Your task to perform on an android device: turn smart compose on in the gmail app Image 0: 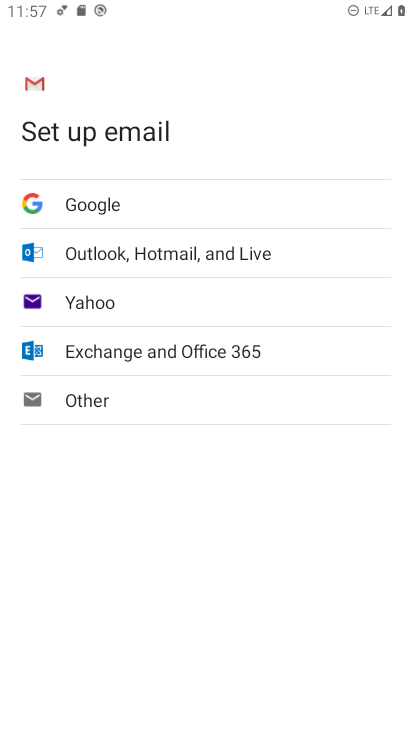
Step 0: press home button
Your task to perform on an android device: turn smart compose on in the gmail app Image 1: 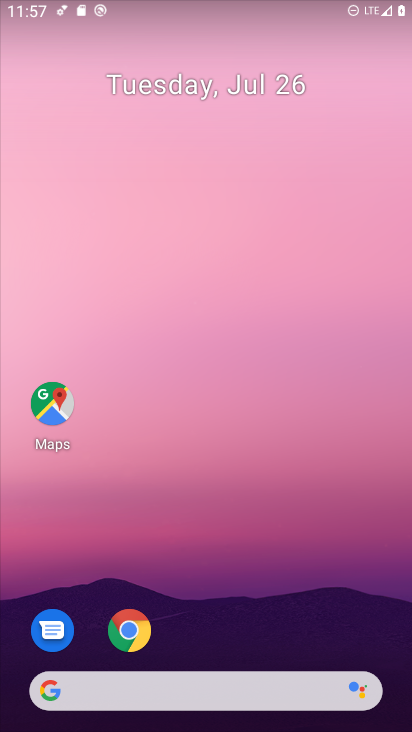
Step 1: drag from (346, 628) to (314, 269)
Your task to perform on an android device: turn smart compose on in the gmail app Image 2: 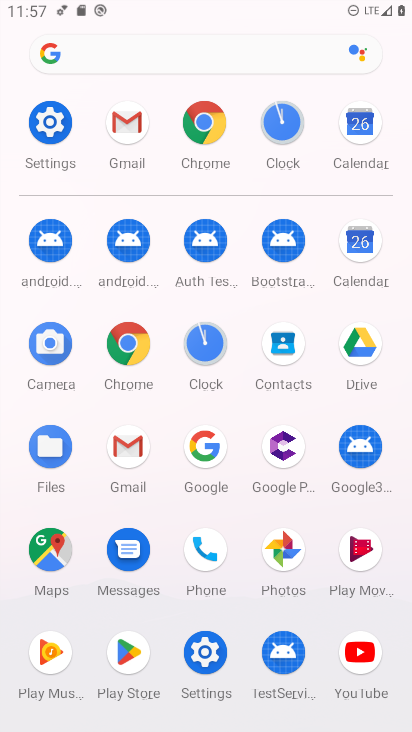
Step 2: click (128, 451)
Your task to perform on an android device: turn smart compose on in the gmail app Image 3: 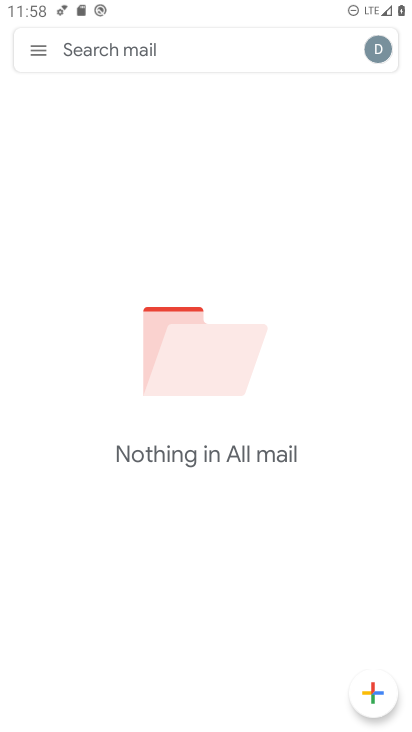
Step 3: click (34, 48)
Your task to perform on an android device: turn smart compose on in the gmail app Image 4: 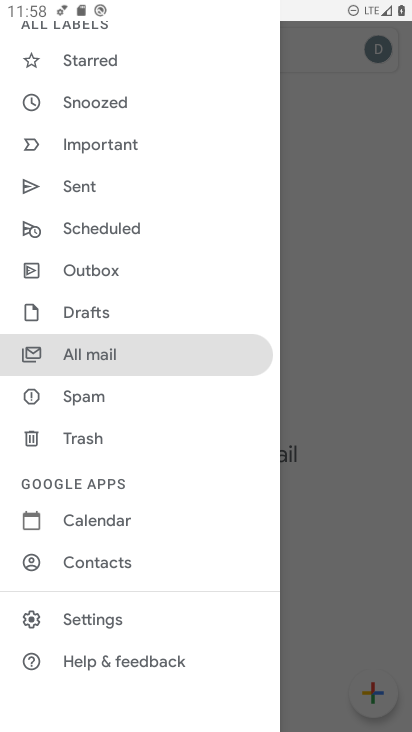
Step 4: click (90, 621)
Your task to perform on an android device: turn smart compose on in the gmail app Image 5: 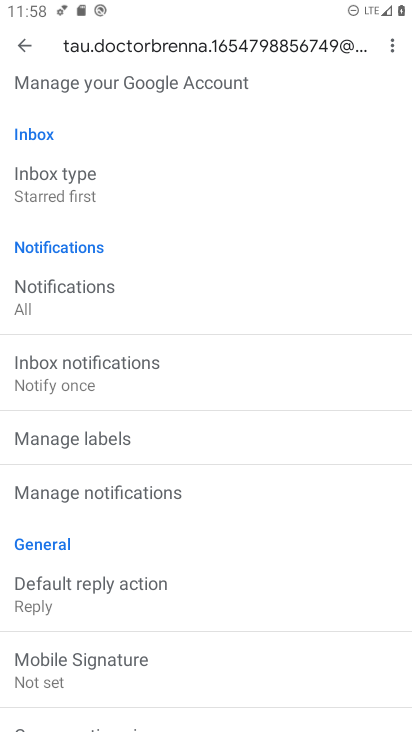
Step 5: task complete